Your task to perform on an android device: turn on the 24-hour format for clock Image 0: 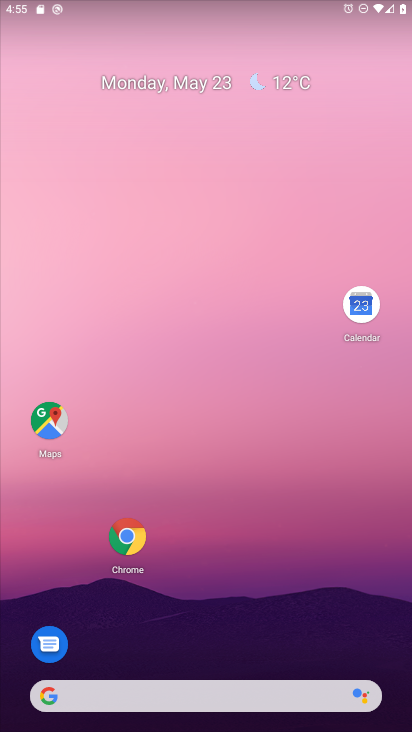
Step 0: drag from (298, 580) to (276, 87)
Your task to perform on an android device: turn on the 24-hour format for clock Image 1: 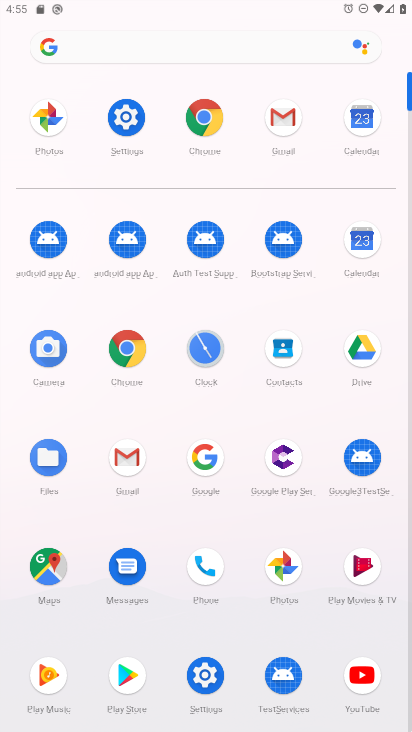
Step 1: click (206, 347)
Your task to perform on an android device: turn on the 24-hour format for clock Image 2: 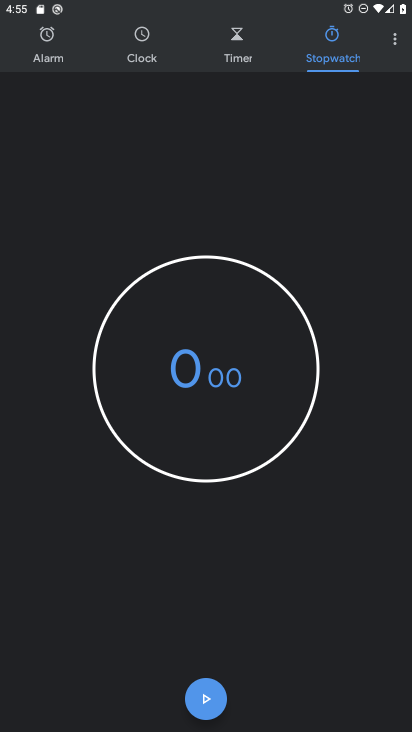
Step 2: click (392, 39)
Your task to perform on an android device: turn on the 24-hour format for clock Image 3: 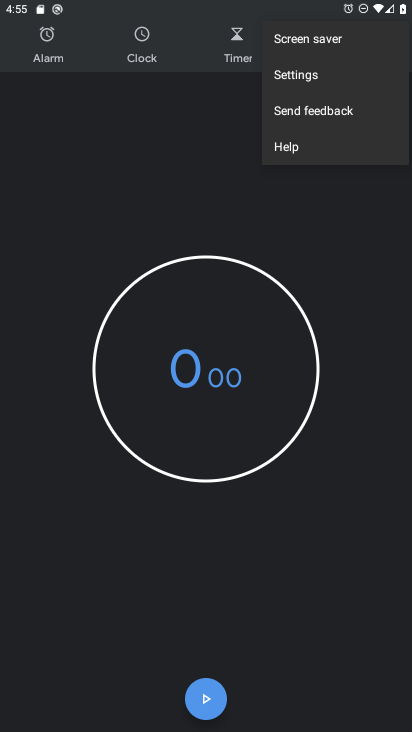
Step 3: click (294, 73)
Your task to perform on an android device: turn on the 24-hour format for clock Image 4: 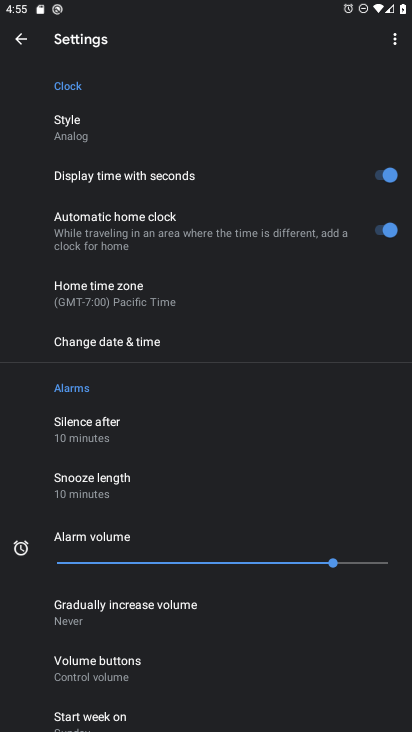
Step 4: click (168, 327)
Your task to perform on an android device: turn on the 24-hour format for clock Image 5: 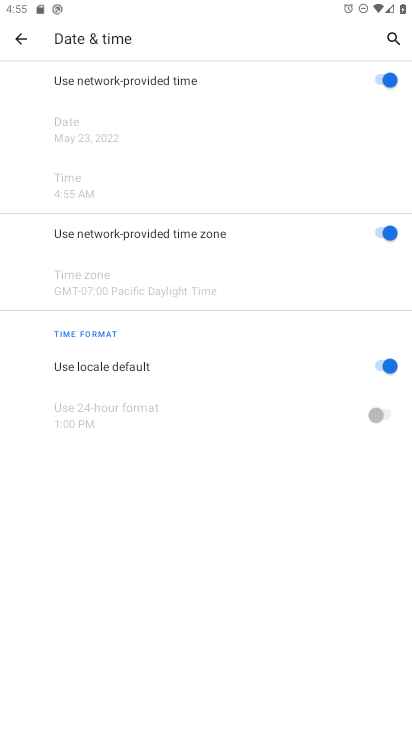
Step 5: click (369, 359)
Your task to perform on an android device: turn on the 24-hour format for clock Image 6: 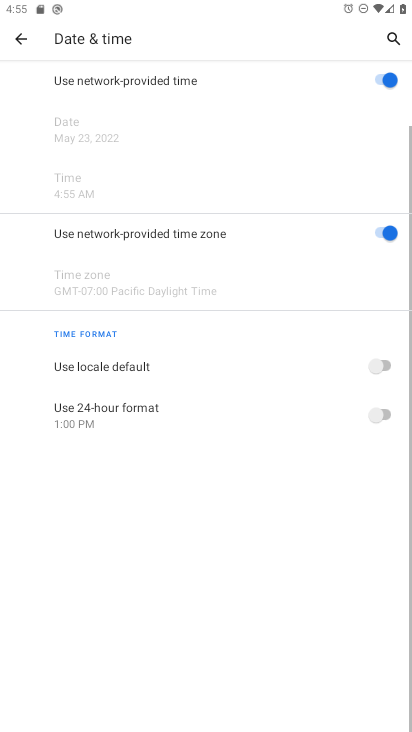
Step 6: click (384, 411)
Your task to perform on an android device: turn on the 24-hour format for clock Image 7: 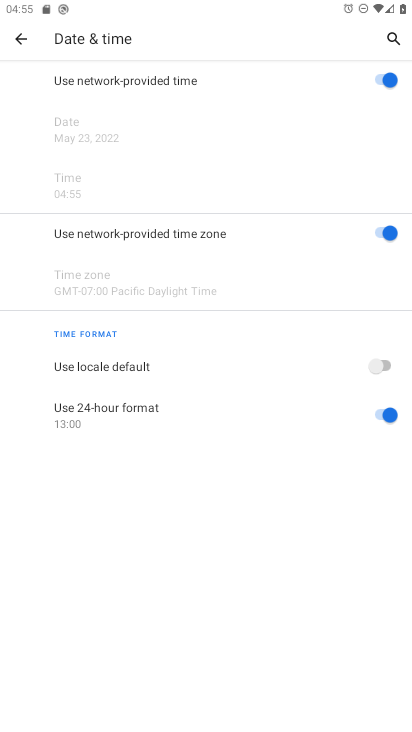
Step 7: task complete